Your task to perform on an android device: remove spam from my inbox in the gmail app Image 0: 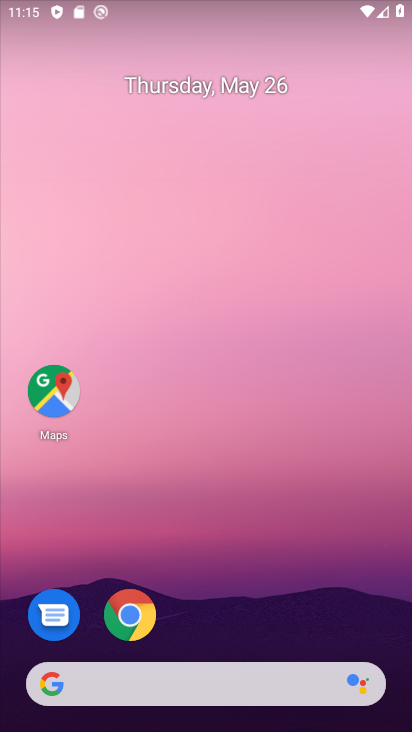
Step 0: press home button
Your task to perform on an android device: remove spam from my inbox in the gmail app Image 1: 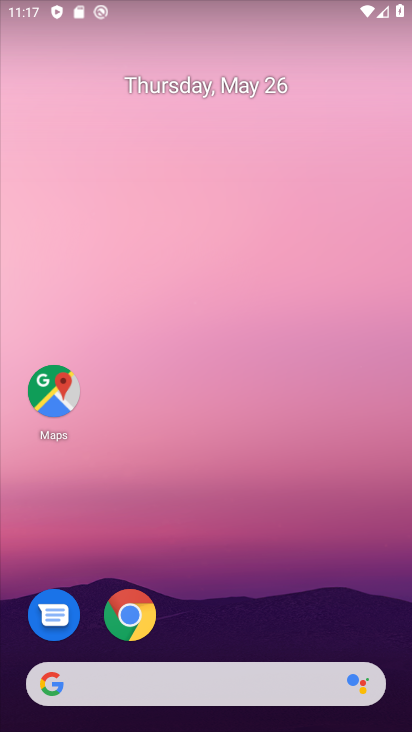
Step 1: drag from (318, 538) to (378, 266)
Your task to perform on an android device: remove spam from my inbox in the gmail app Image 2: 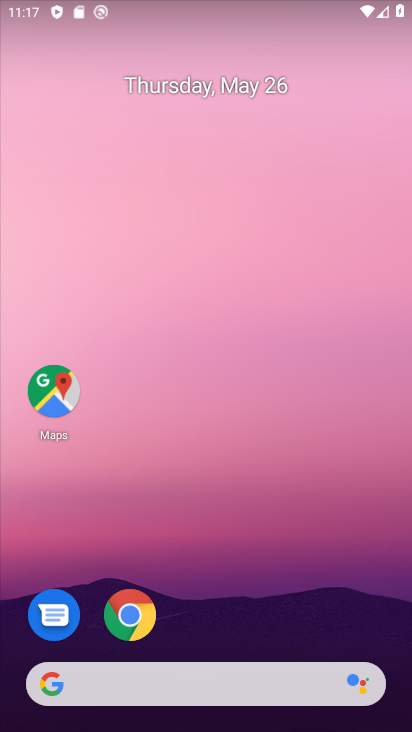
Step 2: drag from (342, 628) to (333, 147)
Your task to perform on an android device: remove spam from my inbox in the gmail app Image 3: 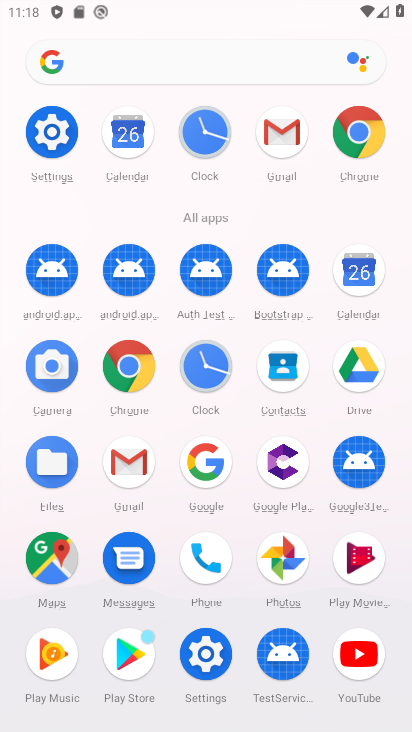
Step 3: click (123, 453)
Your task to perform on an android device: remove spam from my inbox in the gmail app Image 4: 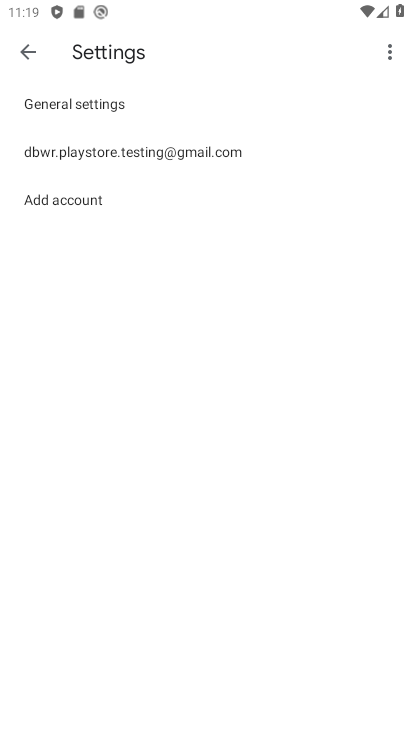
Step 4: click (21, 50)
Your task to perform on an android device: remove spam from my inbox in the gmail app Image 5: 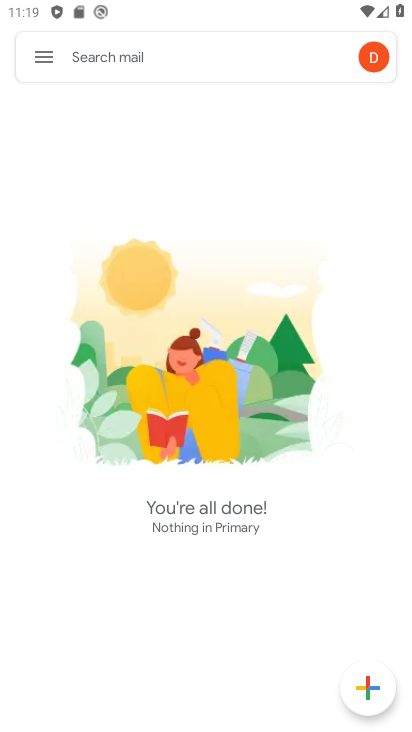
Step 5: task complete